Your task to perform on an android device: turn on translation in the chrome app Image 0: 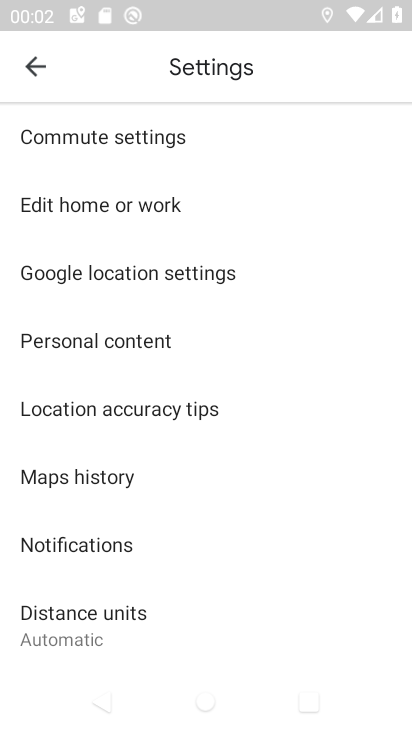
Step 0: press home button
Your task to perform on an android device: turn on translation in the chrome app Image 1: 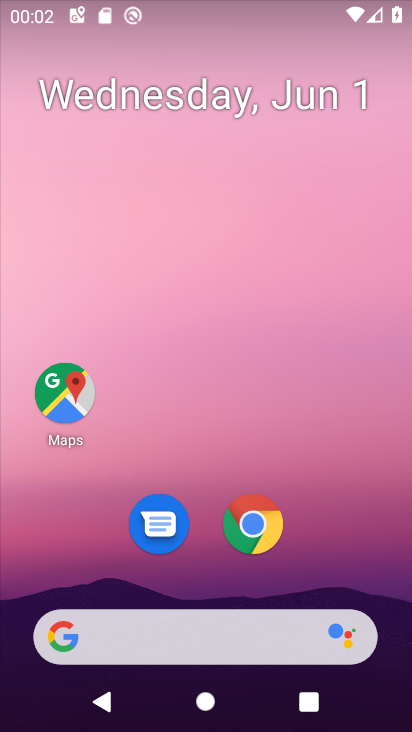
Step 1: click (252, 520)
Your task to perform on an android device: turn on translation in the chrome app Image 2: 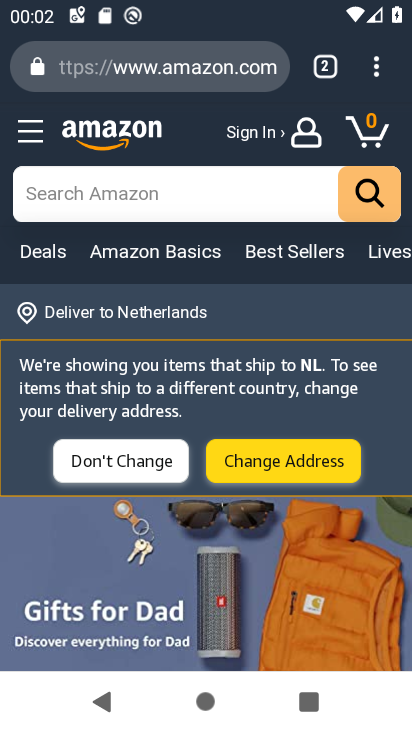
Step 2: click (373, 72)
Your task to perform on an android device: turn on translation in the chrome app Image 3: 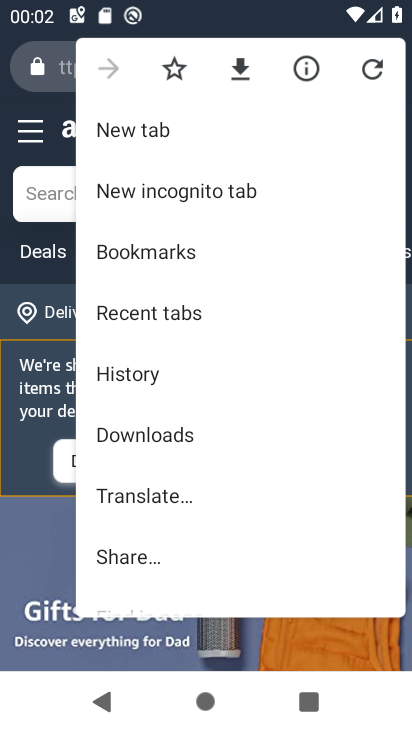
Step 3: drag from (264, 446) to (280, 138)
Your task to perform on an android device: turn on translation in the chrome app Image 4: 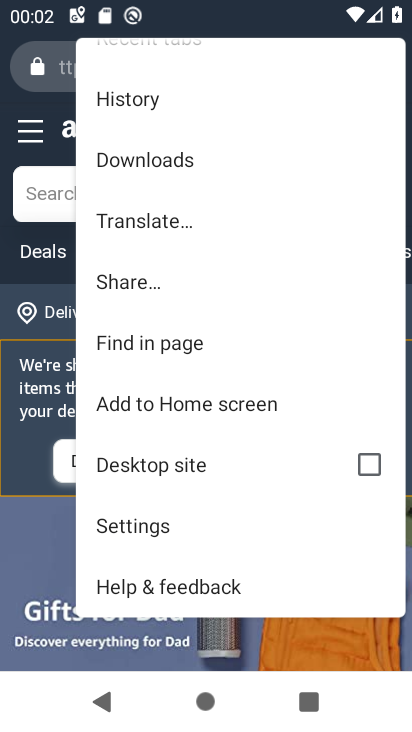
Step 4: click (211, 515)
Your task to perform on an android device: turn on translation in the chrome app Image 5: 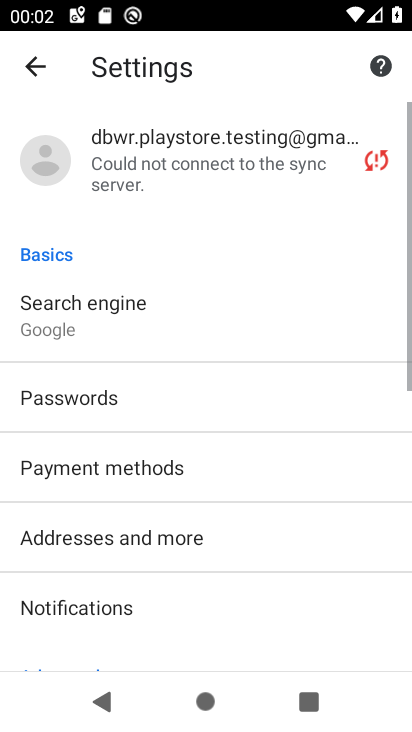
Step 5: drag from (238, 321) to (243, 122)
Your task to perform on an android device: turn on translation in the chrome app Image 6: 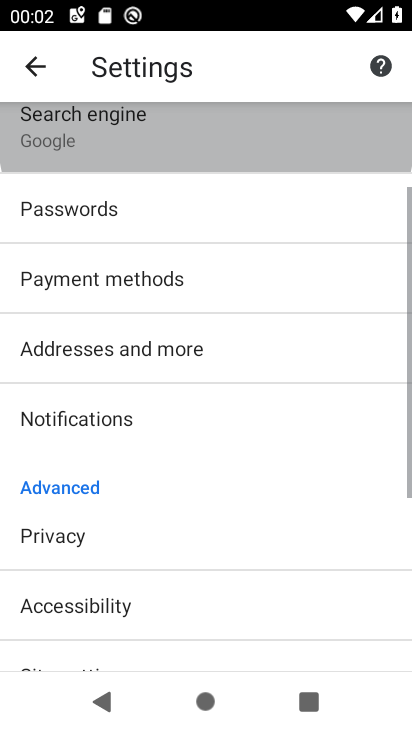
Step 6: drag from (247, 574) to (226, 309)
Your task to perform on an android device: turn on translation in the chrome app Image 7: 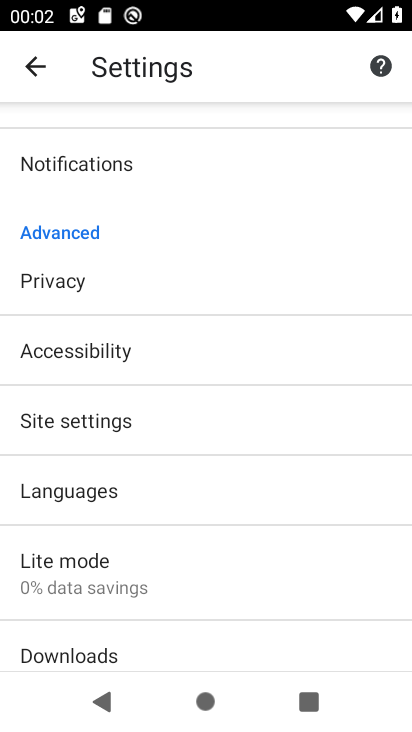
Step 7: click (219, 479)
Your task to perform on an android device: turn on translation in the chrome app Image 8: 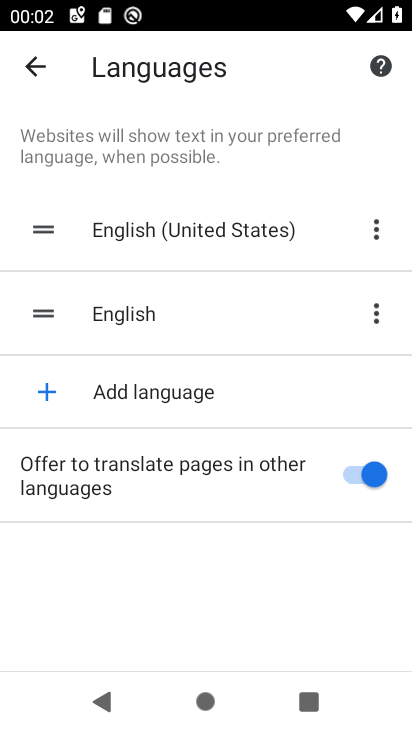
Step 8: task complete